Your task to perform on an android device: find snoozed emails in the gmail app Image 0: 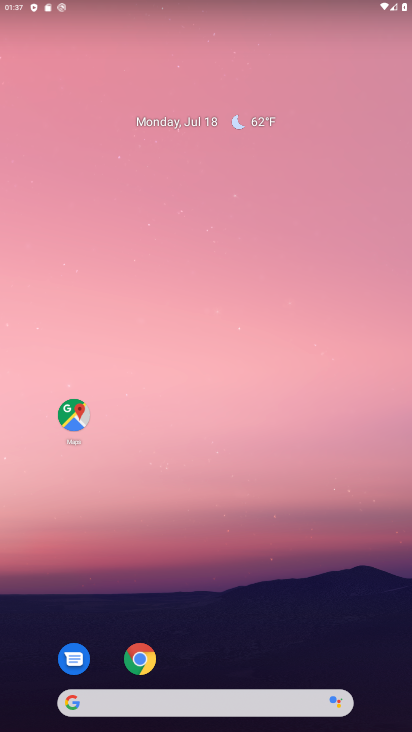
Step 0: drag from (246, 610) to (235, 163)
Your task to perform on an android device: find snoozed emails in the gmail app Image 1: 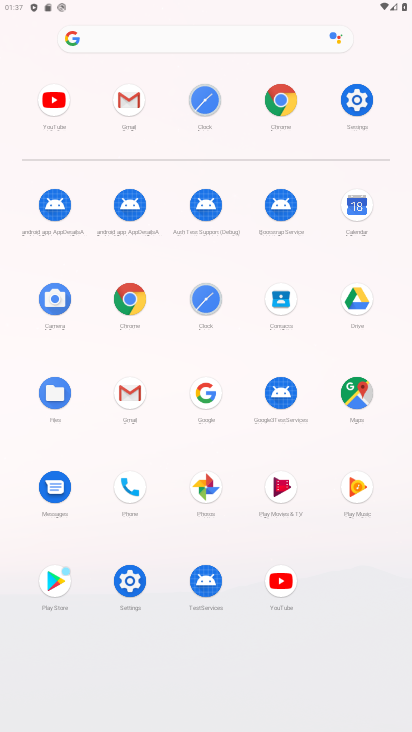
Step 1: click (123, 398)
Your task to perform on an android device: find snoozed emails in the gmail app Image 2: 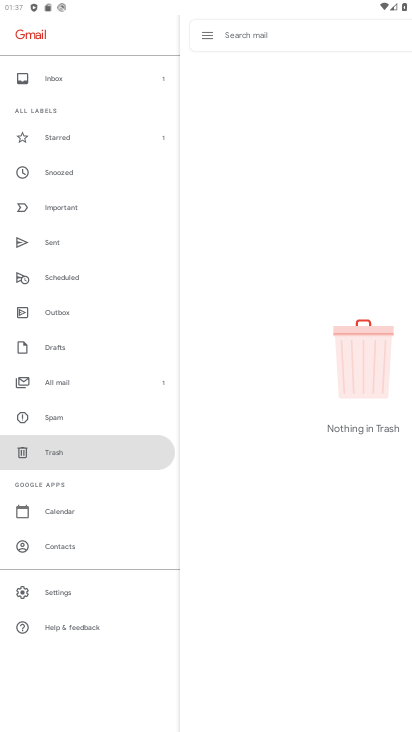
Step 2: click (64, 172)
Your task to perform on an android device: find snoozed emails in the gmail app Image 3: 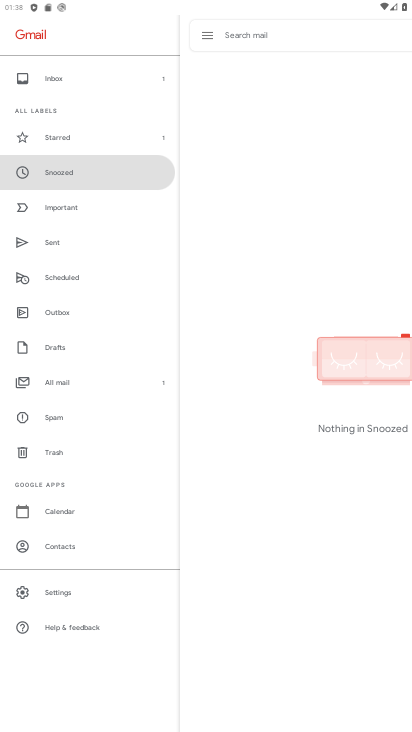
Step 3: task complete